Your task to perform on an android device: Search for "apple airpods pro" on costco, select the first entry, add it to the cart, then select checkout. Image 0: 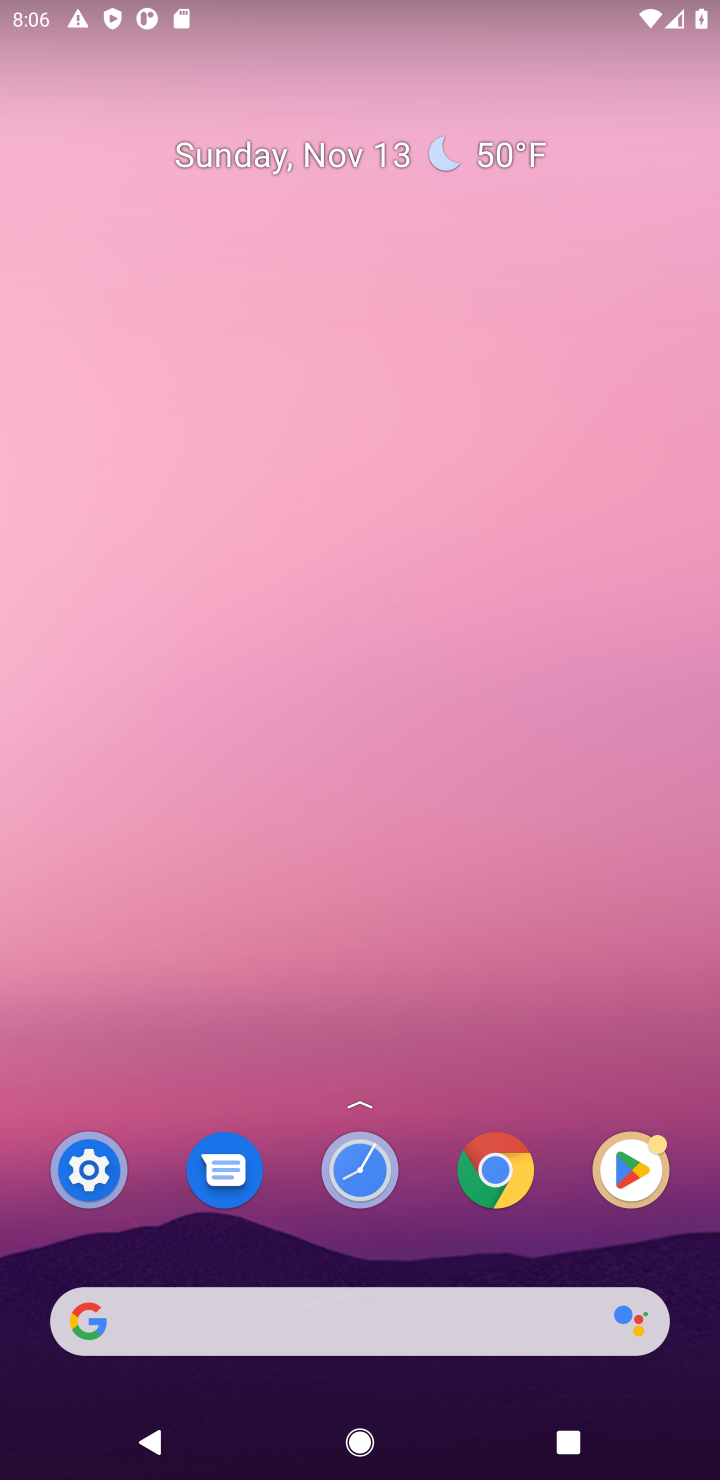
Step 0: click (380, 1319)
Your task to perform on an android device: Search for "apple airpods pro" on costco, select the first entry, add it to the cart, then select checkout. Image 1: 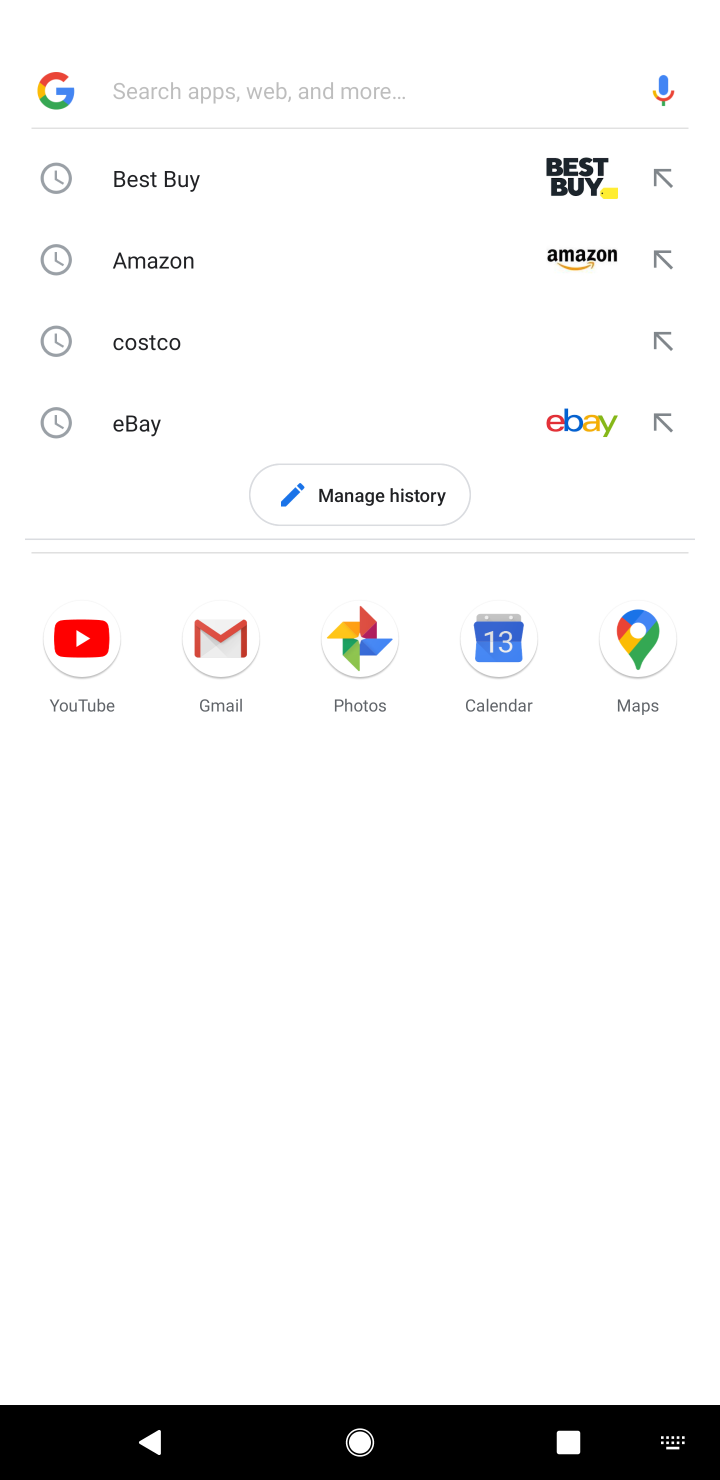
Step 1: type "costco.com"
Your task to perform on an android device: Search for "apple airpods pro" on costco, select the first entry, add it to the cart, then select checkout. Image 2: 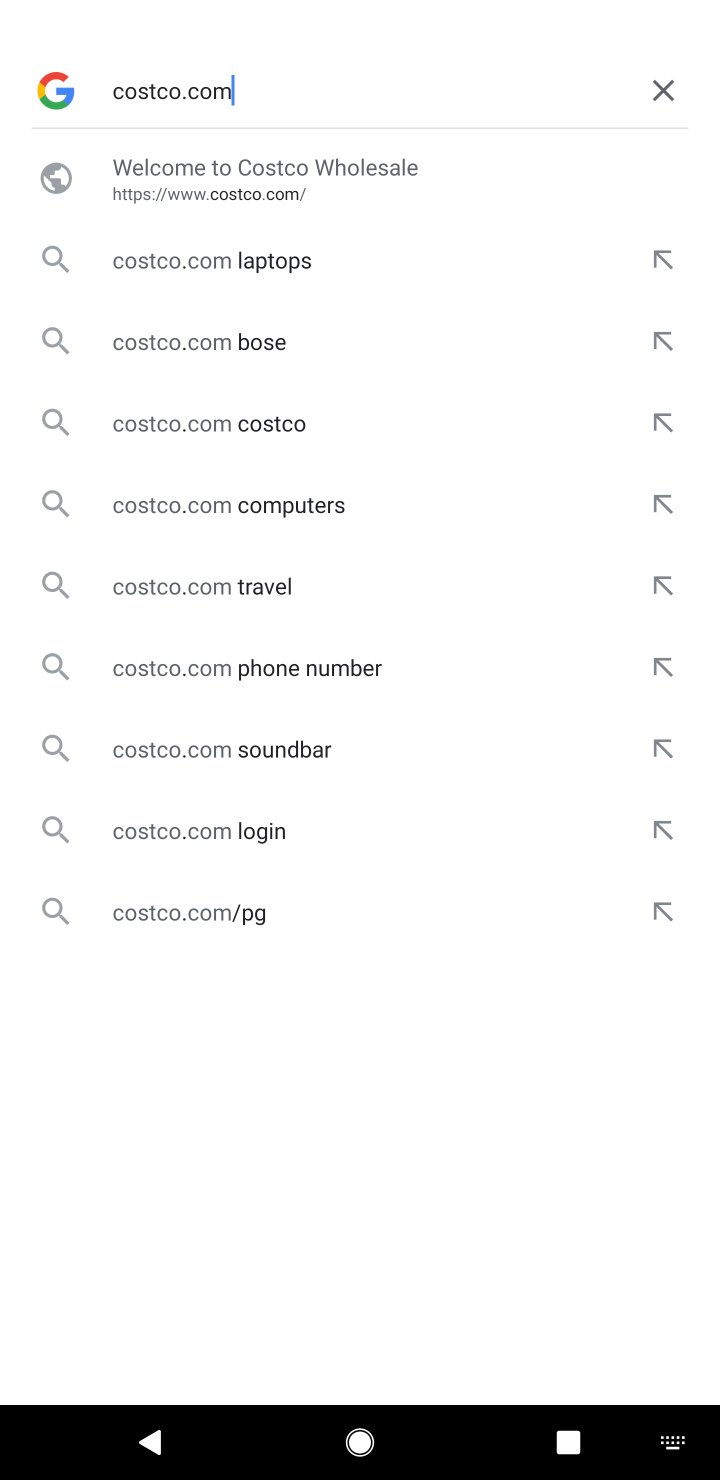
Step 2: click (309, 218)
Your task to perform on an android device: Search for "apple airpods pro" on costco, select the first entry, add it to the cart, then select checkout. Image 3: 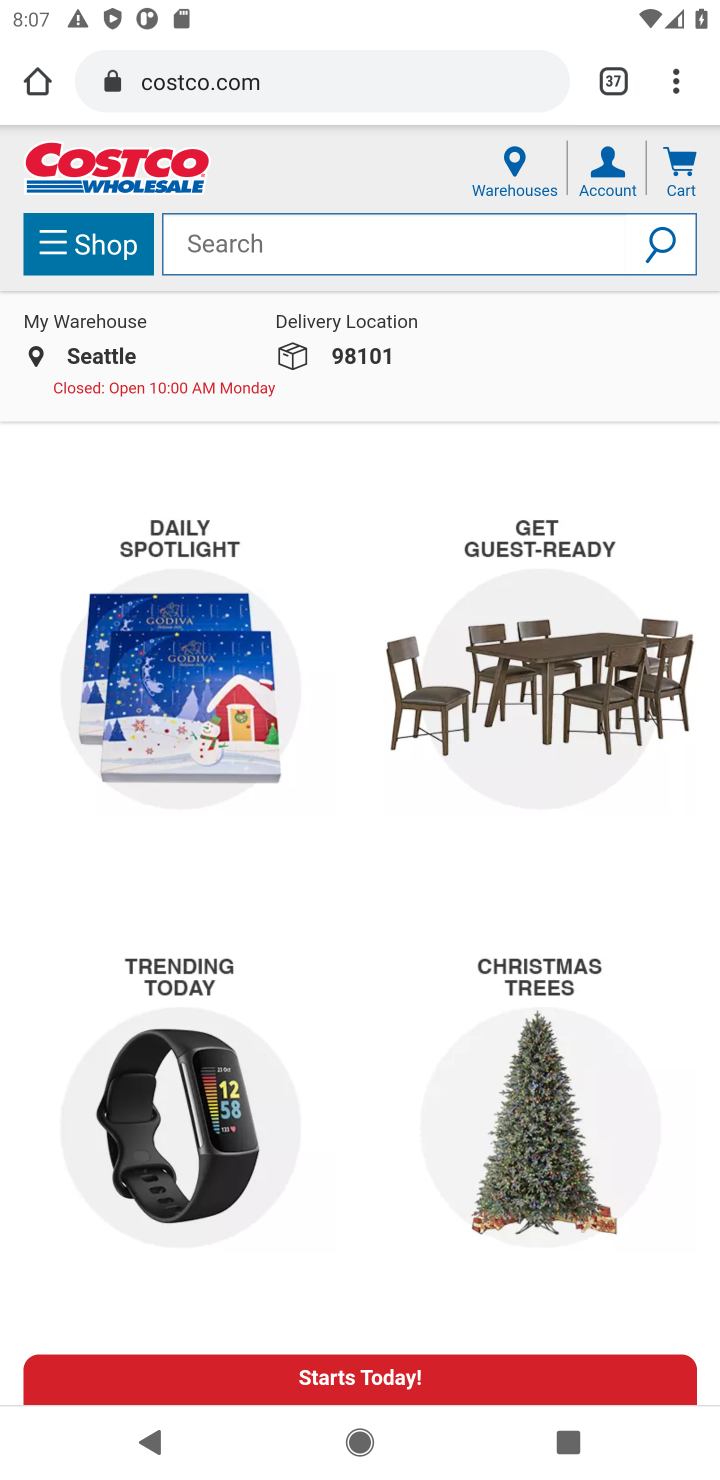
Step 3: press home button
Your task to perform on an android device: Search for "apple airpods pro" on costco, select the first entry, add it to the cart, then select checkout. Image 4: 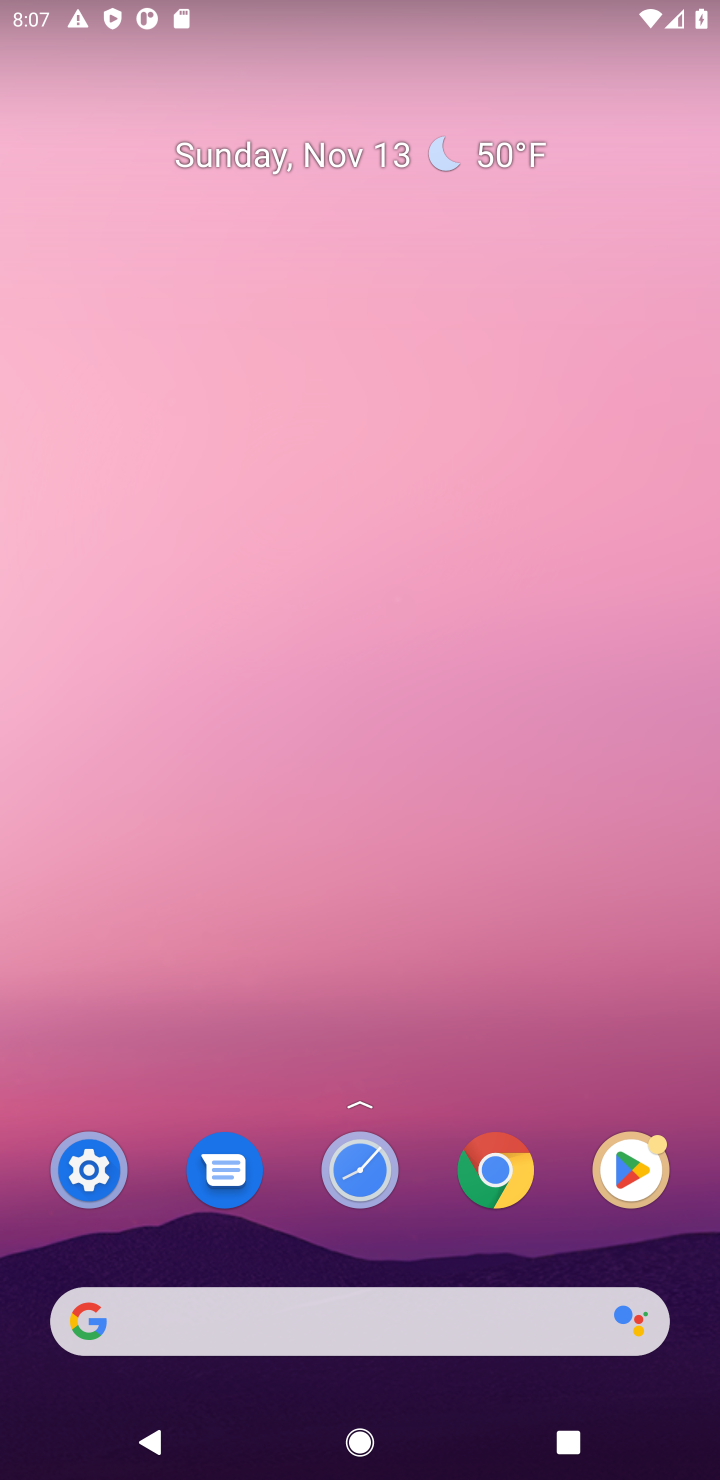
Step 4: click (428, 1306)
Your task to perform on an android device: Search for "apple airpods pro" on costco, select the first entry, add it to the cart, then select checkout. Image 5: 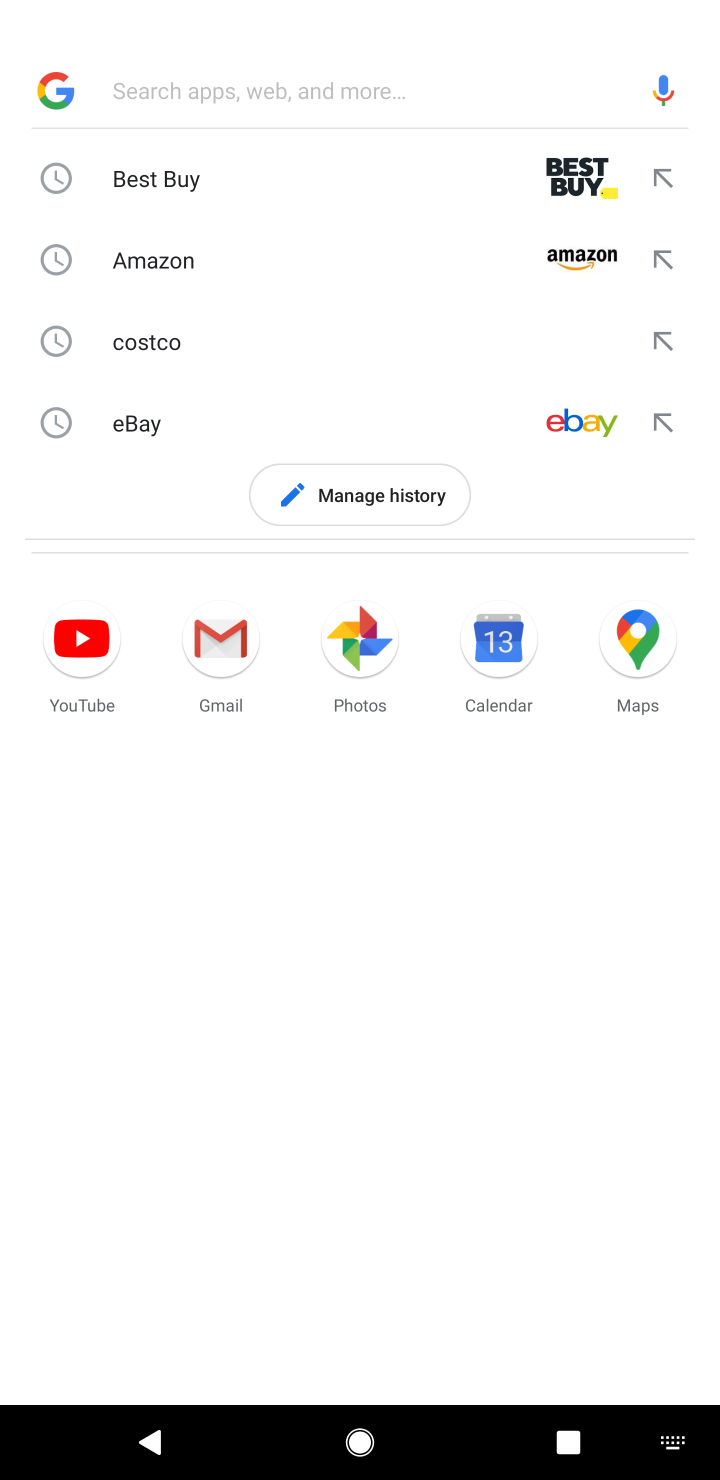
Step 5: type "costco"
Your task to perform on an android device: Search for "apple airpods pro" on costco, select the first entry, add it to the cart, then select checkout. Image 6: 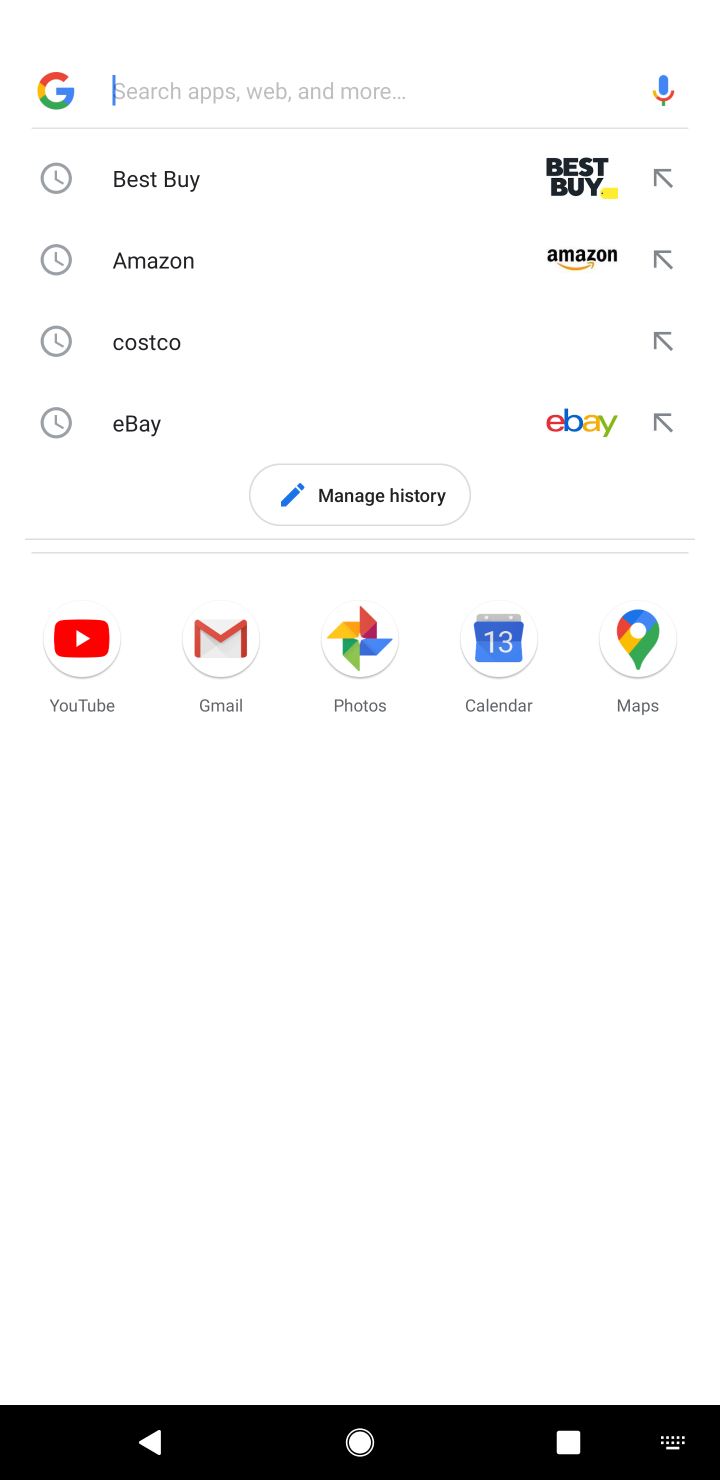
Step 6: click (233, 325)
Your task to perform on an android device: Search for "apple airpods pro" on costco, select the first entry, add it to the cart, then select checkout. Image 7: 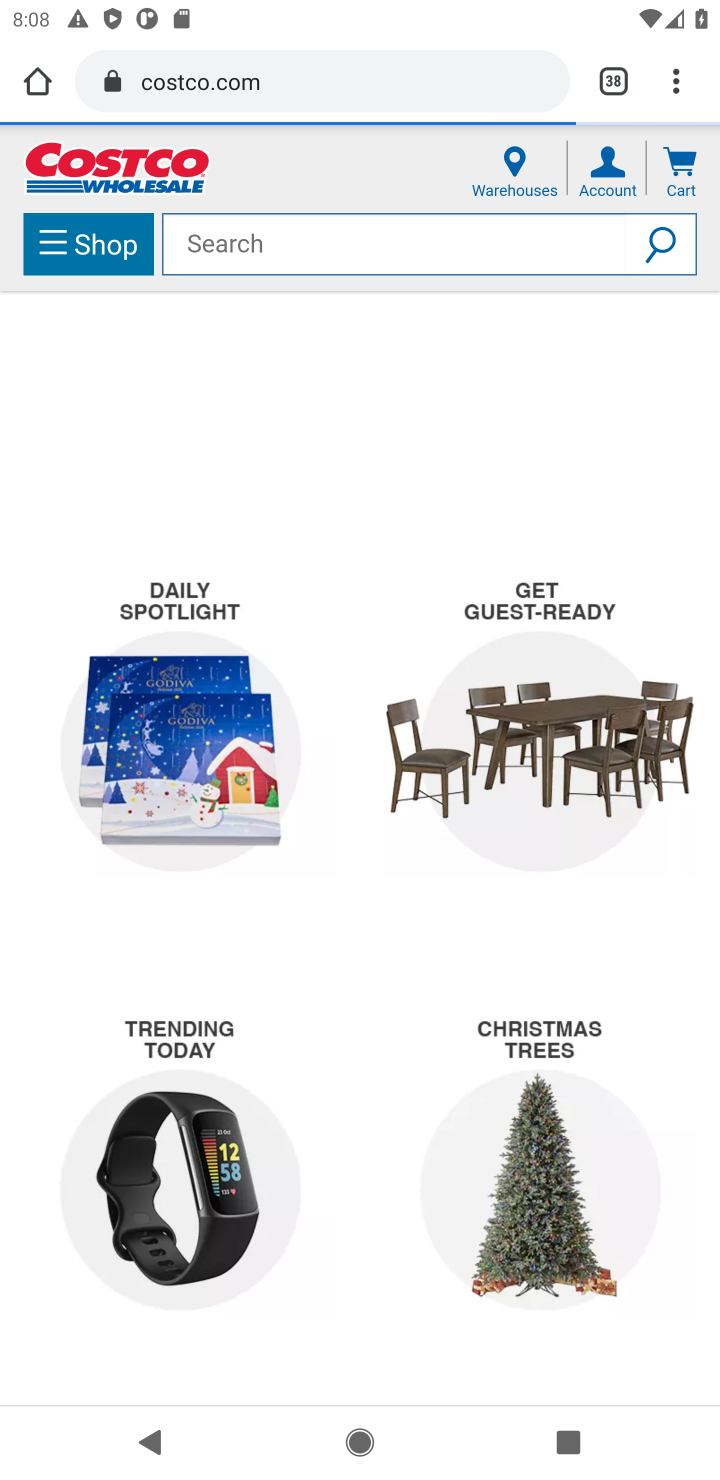
Step 7: task complete